Your task to perform on an android device: choose inbox layout in the gmail app Image 0: 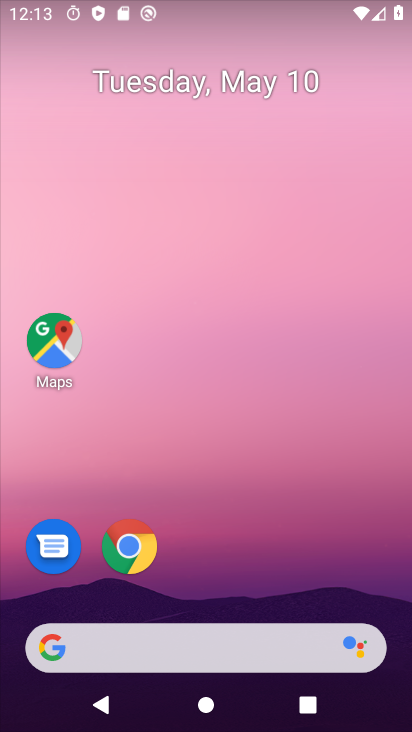
Step 0: drag from (293, 557) to (382, 1)
Your task to perform on an android device: choose inbox layout in the gmail app Image 1: 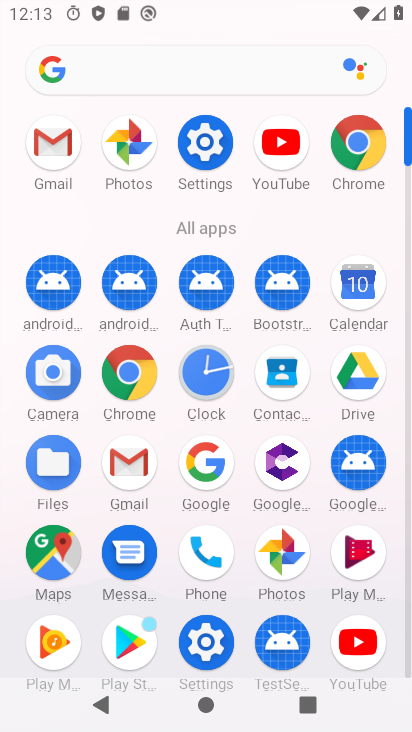
Step 1: click (49, 161)
Your task to perform on an android device: choose inbox layout in the gmail app Image 2: 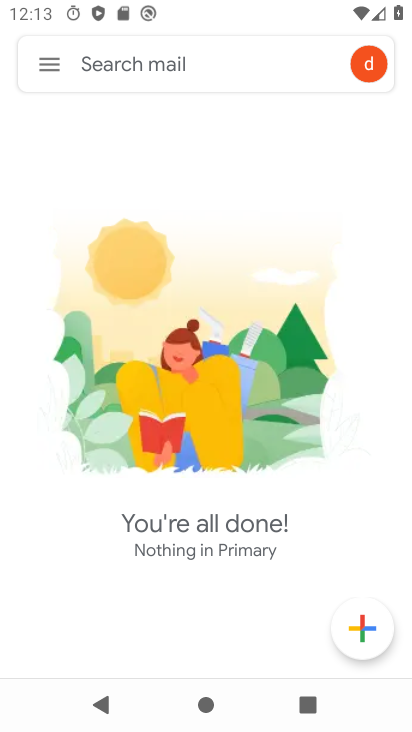
Step 2: click (52, 66)
Your task to perform on an android device: choose inbox layout in the gmail app Image 3: 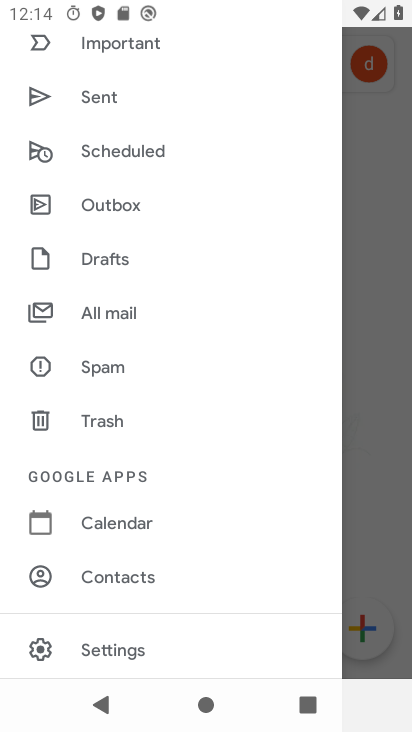
Step 3: click (115, 643)
Your task to perform on an android device: choose inbox layout in the gmail app Image 4: 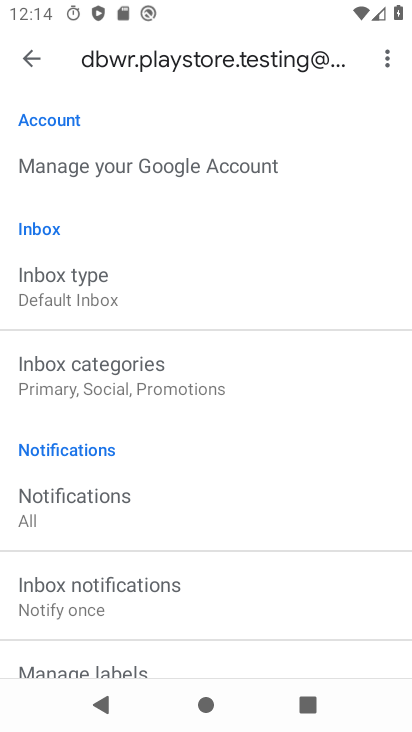
Step 4: click (104, 284)
Your task to perform on an android device: choose inbox layout in the gmail app Image 5: 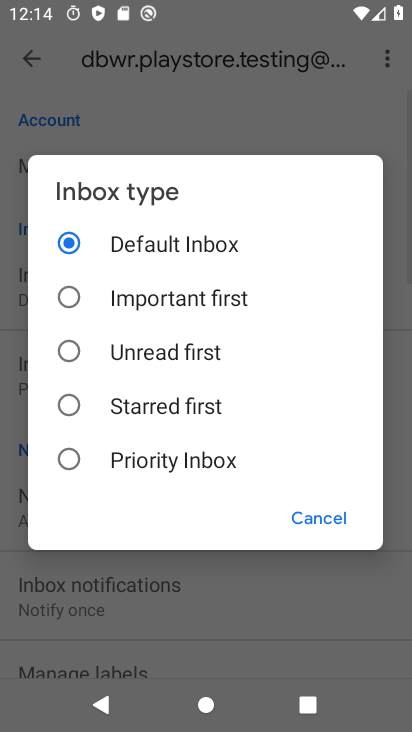
Step 5: click (140, 459)
Your task to perform on an android device: choose inbox layout in the gmail app Image 6: 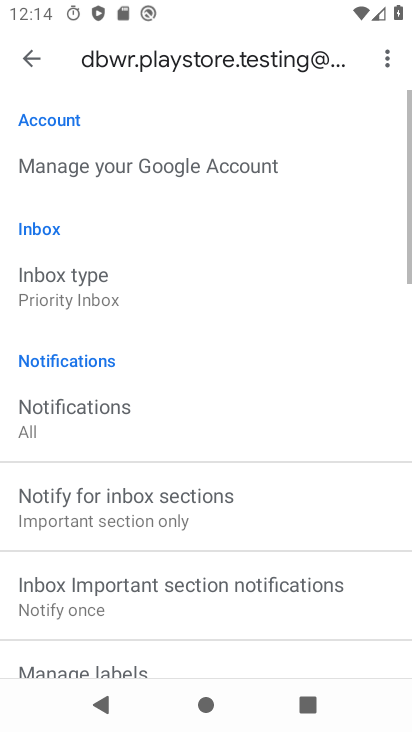
Step 6: task complete